Your task to perform on an android device: View the shopping cart on amazon.com. Search for usb-c on amazon.com, select the first entry, and add it to the cart. Image 0: 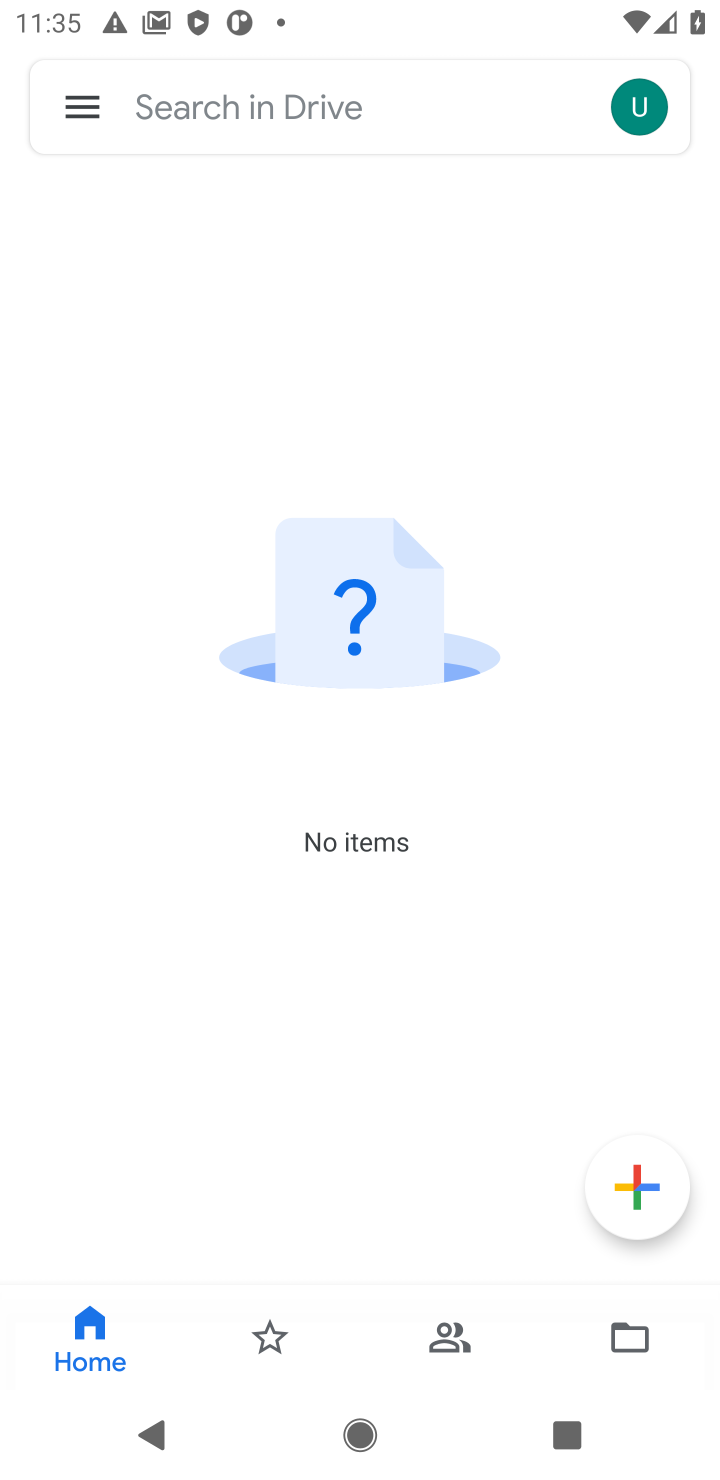
Step 0: press home button
Your task to perform on an android device: View the shopping cart on amazon.com. Search for usb-c on amazon.com, select the first entry, and add it to the cart. Image 1: 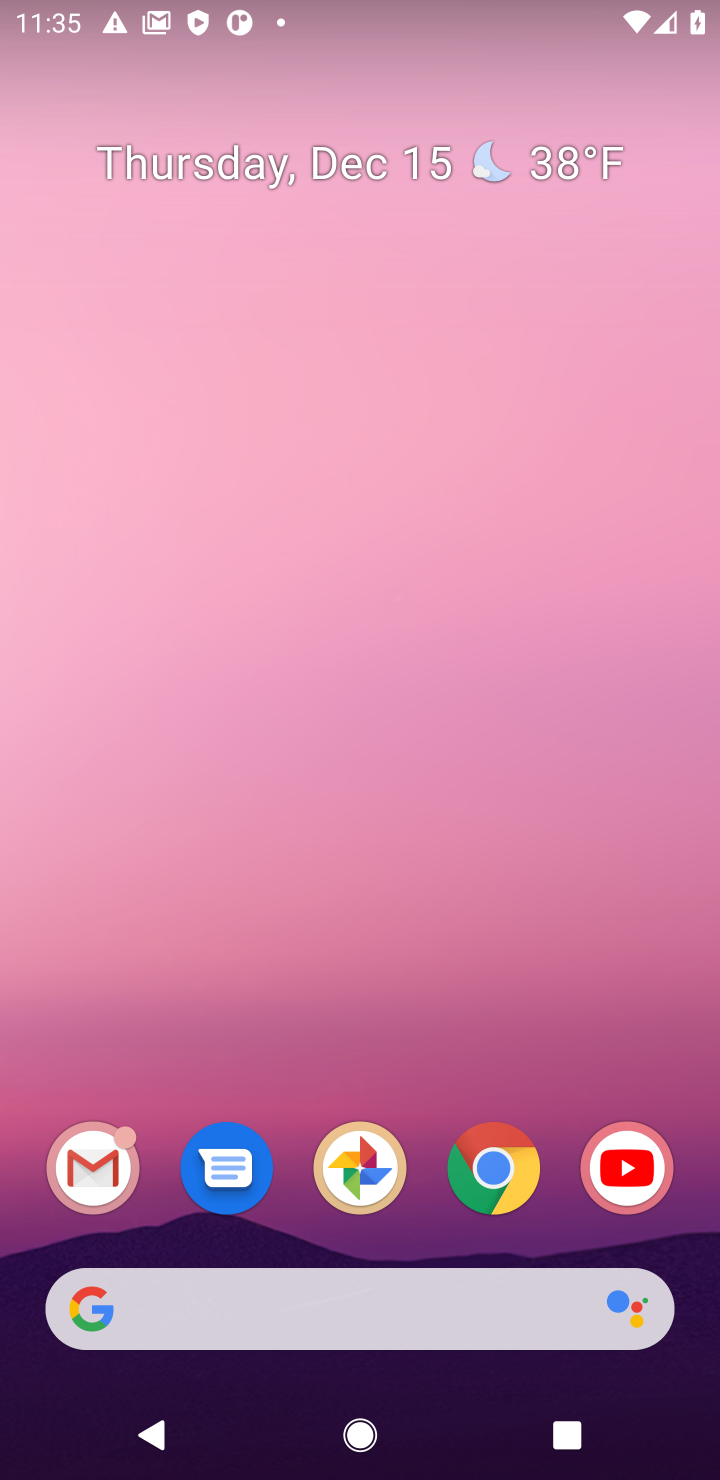
Step 1: click (485, 1176)
Your task to perform on an android device: View the shopping cart on amazon.com. Search for usb-c on amazon.com, select the first entry, and add it to the cart. Image 2: 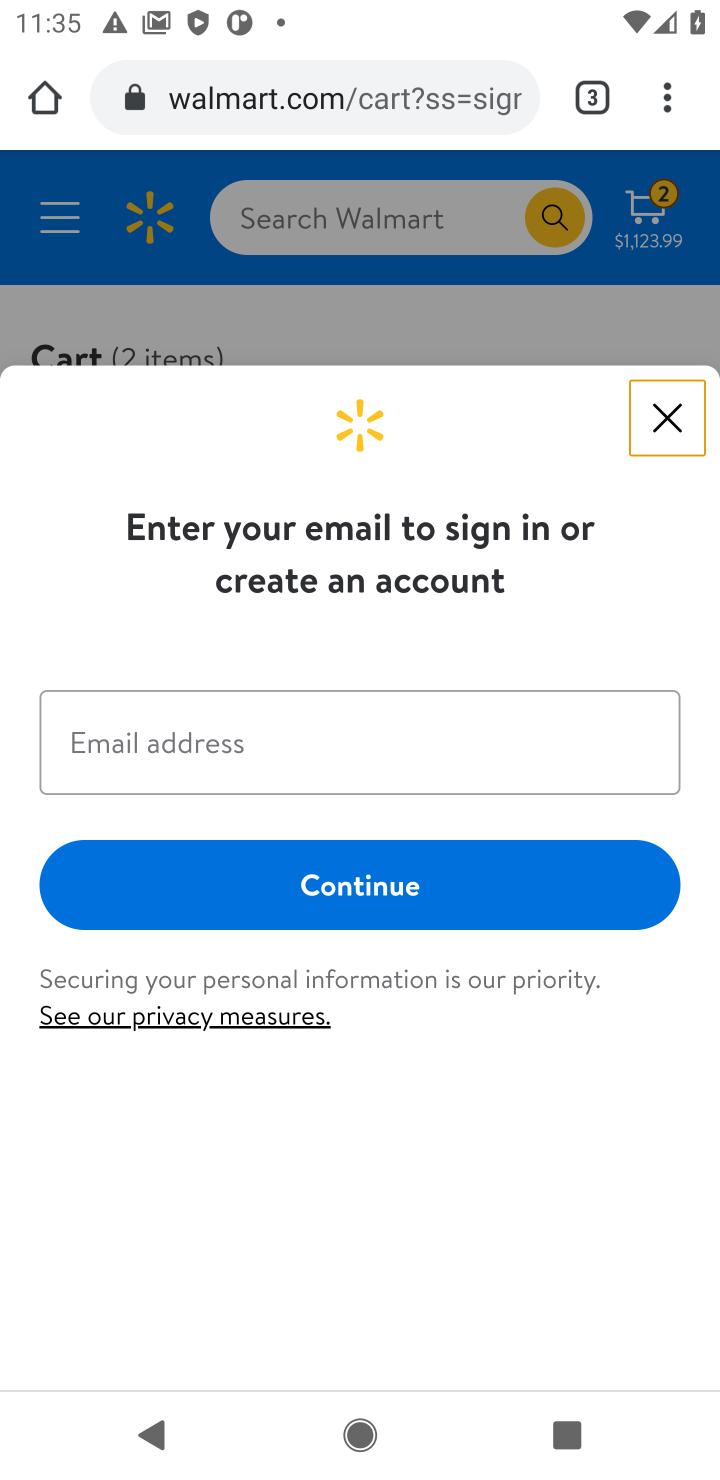
Step 2: click (673, 425)
Your task to perform on an android device: View the shopping cart on amazon.com. Search for usb-c on amazon.com, select the first entry, and add it to the cart. Image 3: 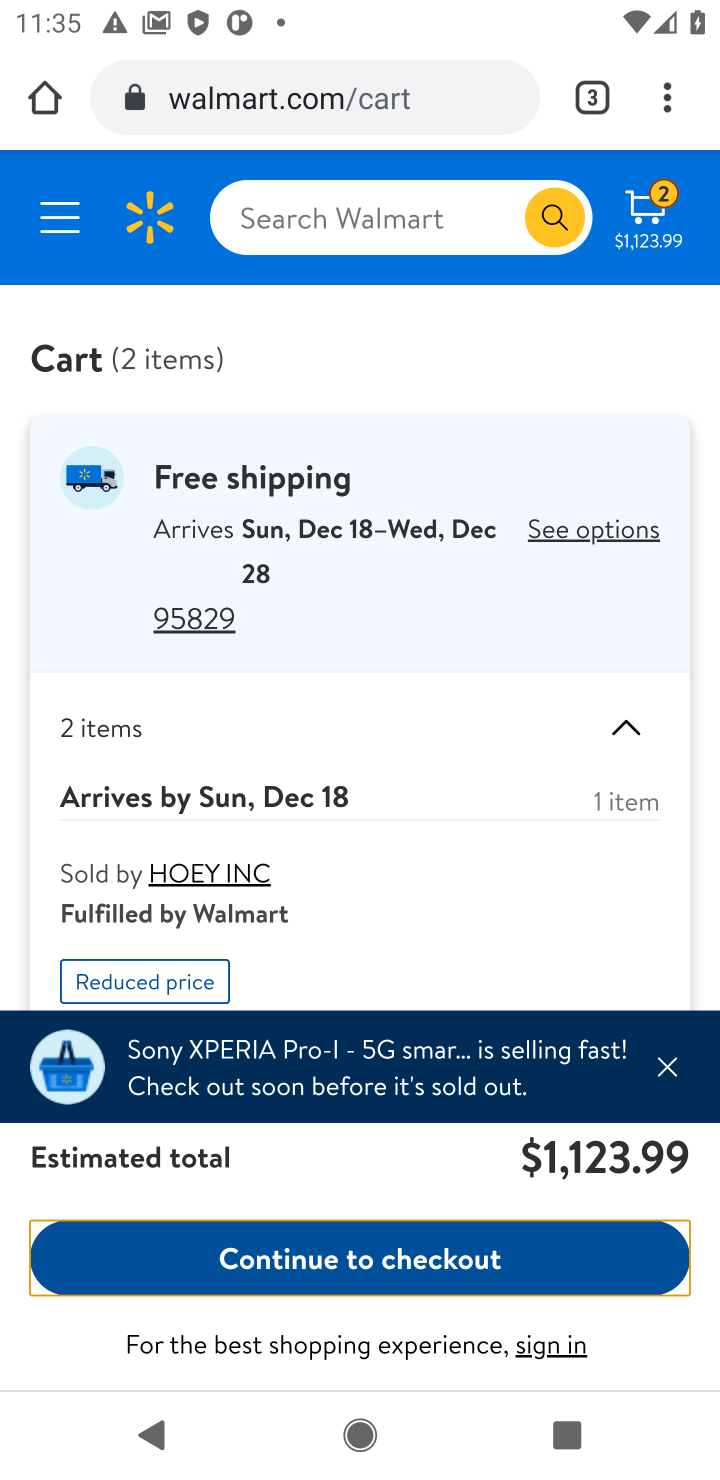
Step 3: click (353, 92)
Your task to perform on an android device: View the shopping cart on amazon.com. Search for usb-c on amazon.com, select the first entry, and add it to the cart. Image 4: 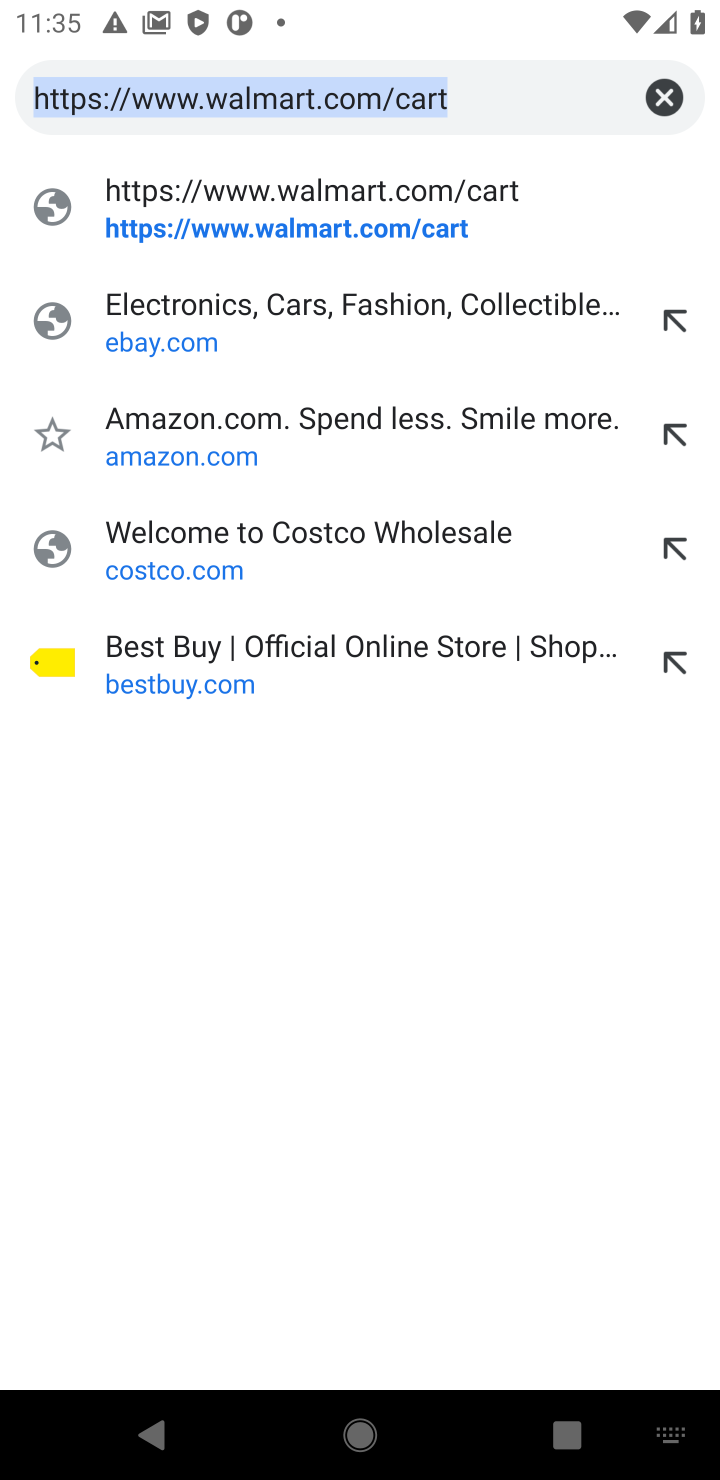
Step 4: click (212, 447)
Your task to perform on an android device: View the shopping cart on amazon.com. Search for usb-c on amazon.com, select the first entry, and add it to the cart. Image 5: 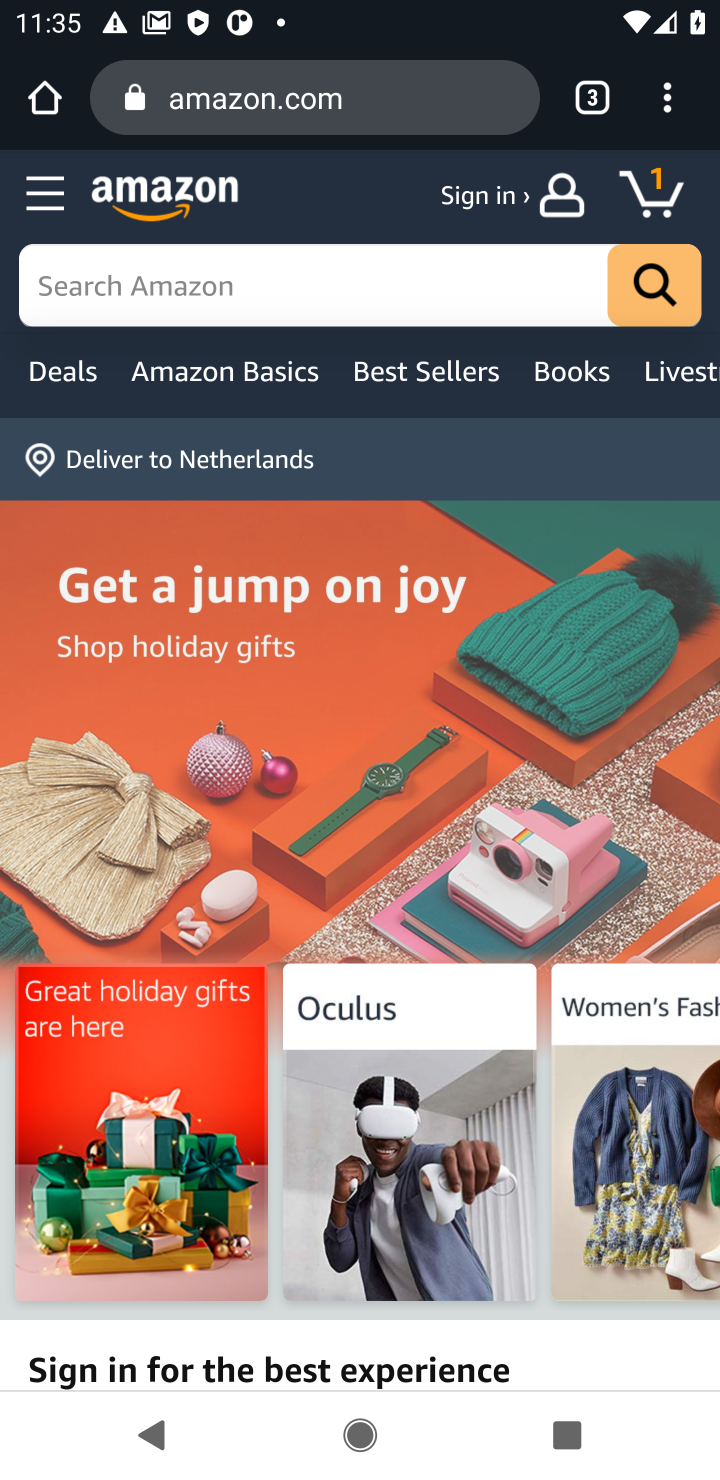
Step 5: click (260, 285)
Your task to perform on an android device: View the shopping cart on amazon.com. Search for usb-c on amazon.com, select the first entry, and add it to the cart. Image 6: 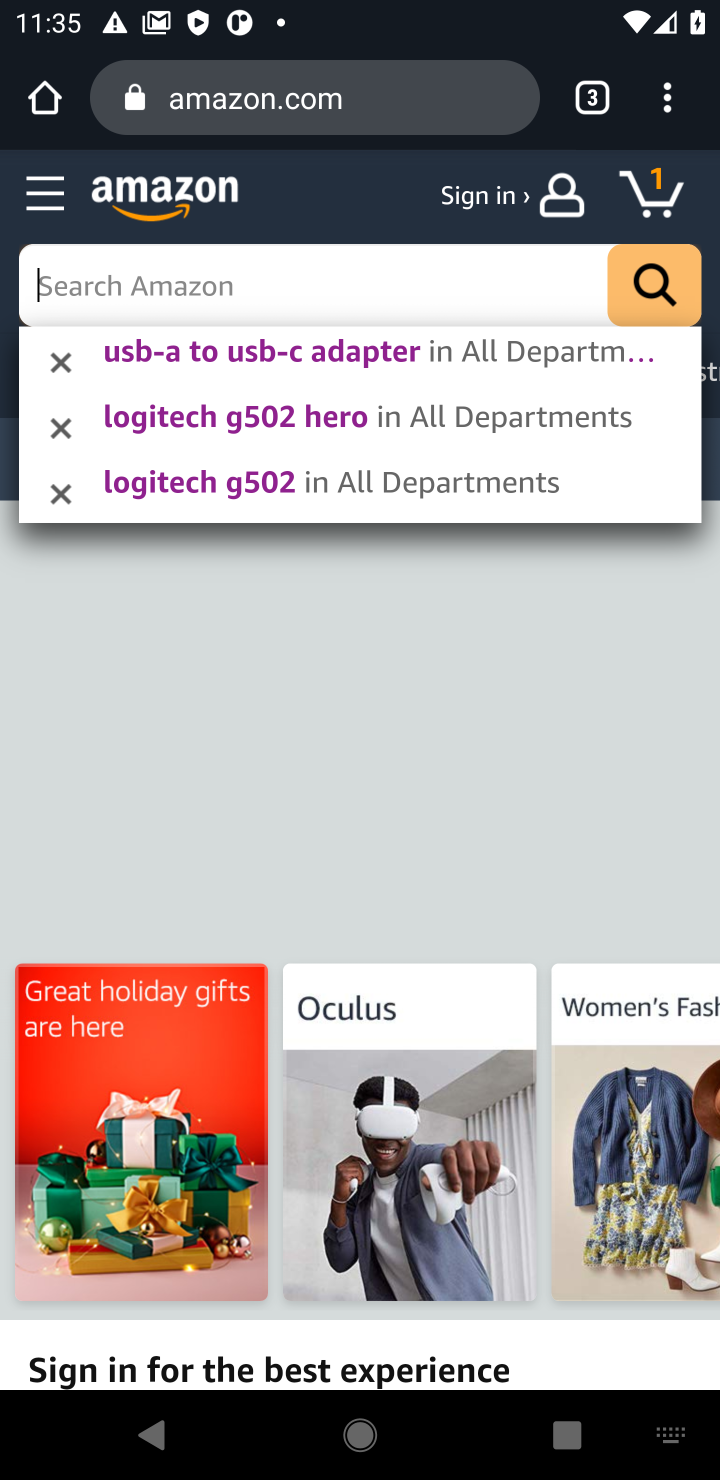
Step 6: type "usb-c"
Your task to perform on an android device: View the shopping cart on amazon.com. Search for usb-c on amazon.com, select the first entry, and add it to the cart. Image 7: 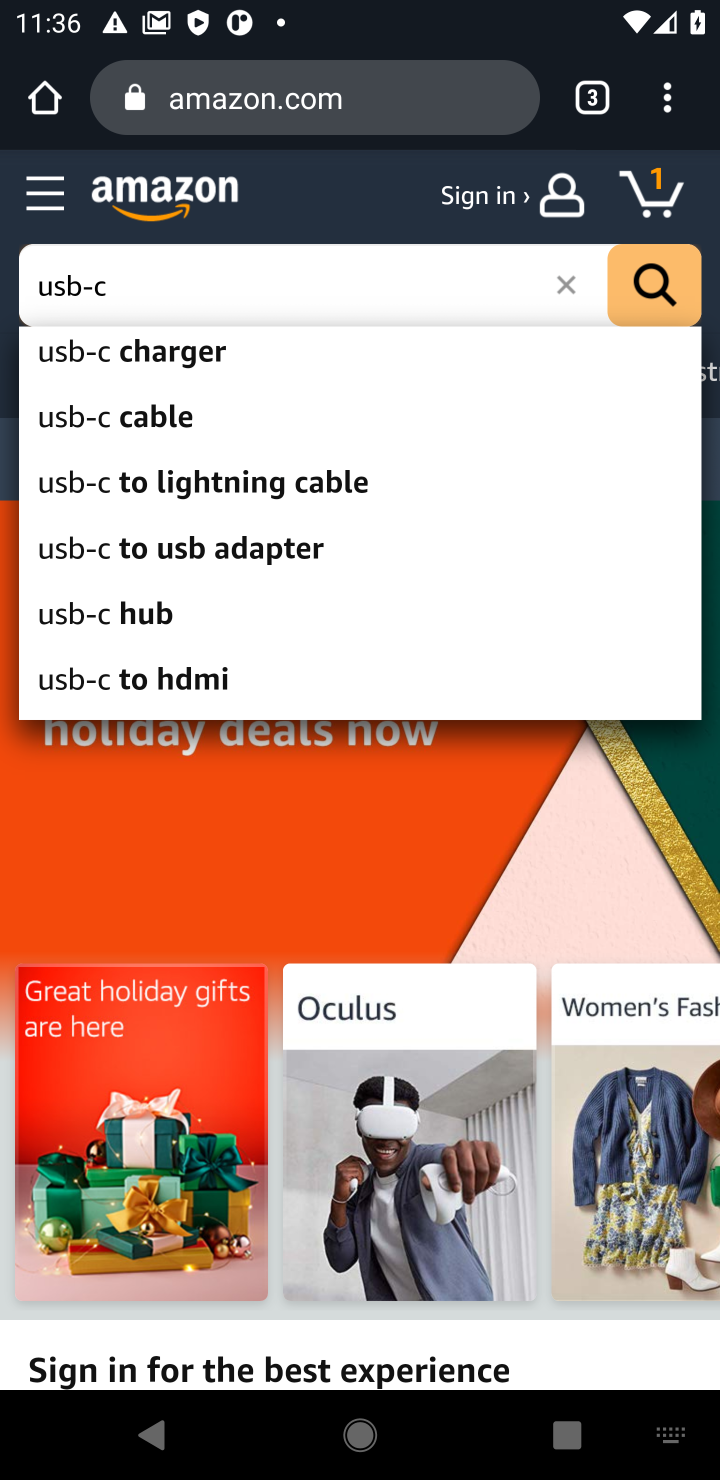
Step 7: click (206, 355)
Your task to perform on an android device: View the shopping cart on amazon.com. Search for usb-c on amazon.com, select the first entry, and add it to the cart. Image 8: 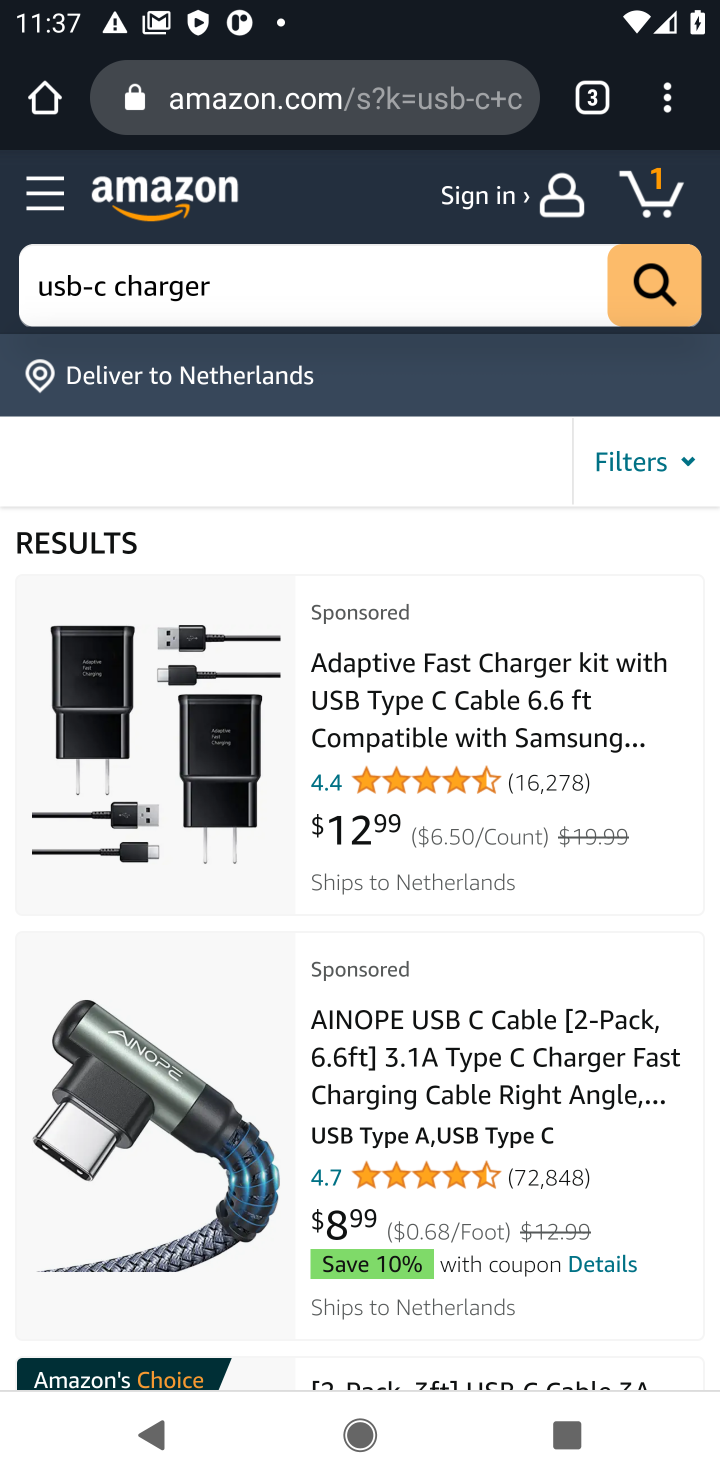
Step 8: click (592, 676)
Your task to perform on an android device: View the shopping cart on amazon.com. Search for usb-c on amazon.com, select the first entry, and add it to the cart. Image 9: 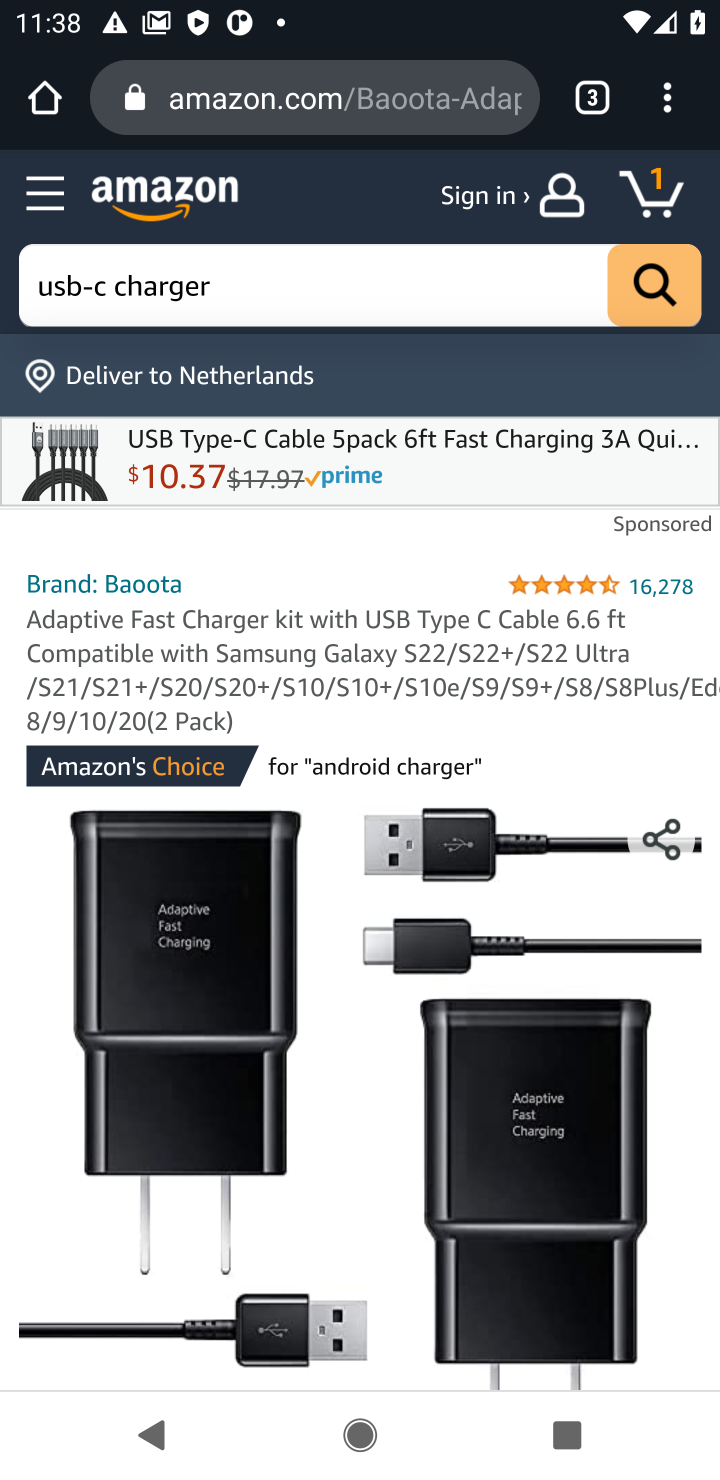
Step 9: drag from (422, 1129) to (509, 0)
Your task to perform on an android device: View the shopping cart on amazon.com. Search for usb-c on amazon.com, select the first entry, and add it to the cart. Image 10: 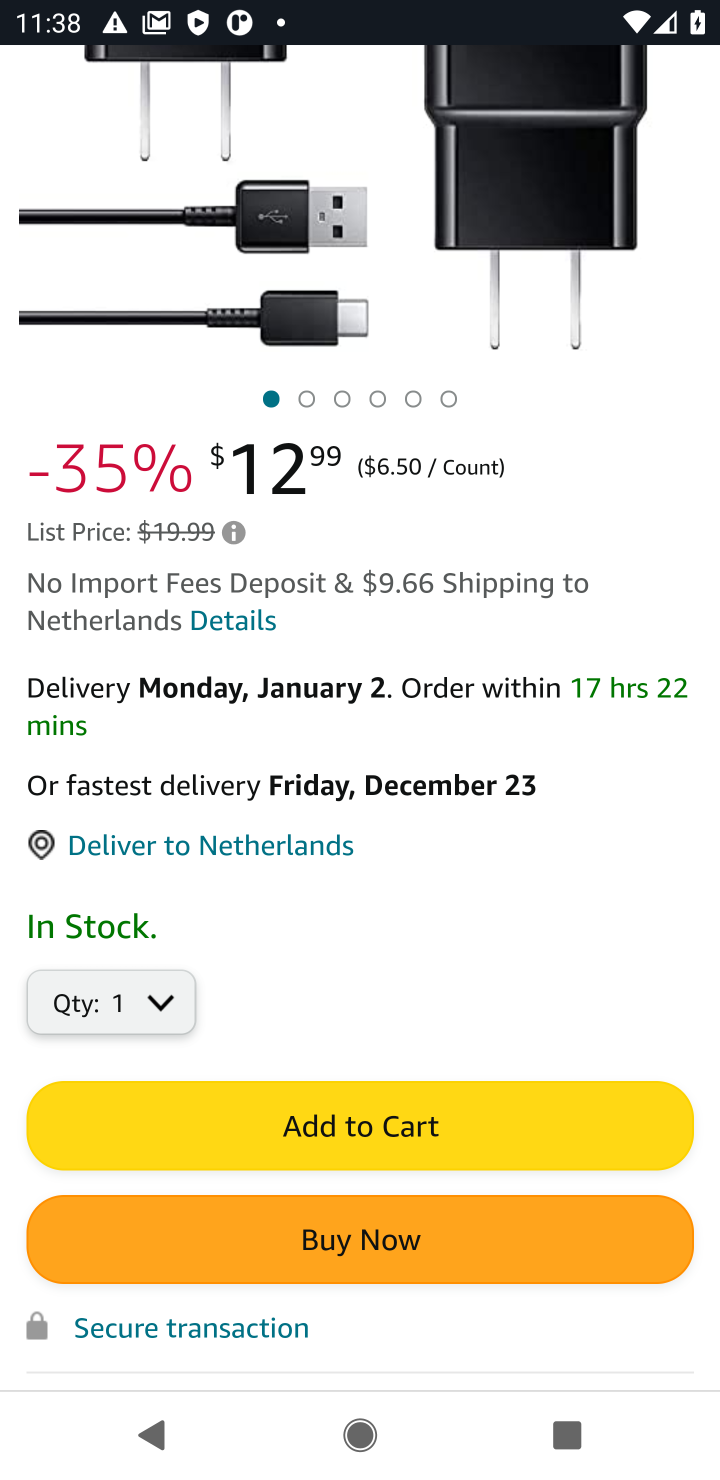
Step 10: click (450, 1133)
Your task to perform on an android device: View the shopping cart on amazon.com. Search for usb-c on amazon.com, select the first entry, and add it to the cart. Image 11: 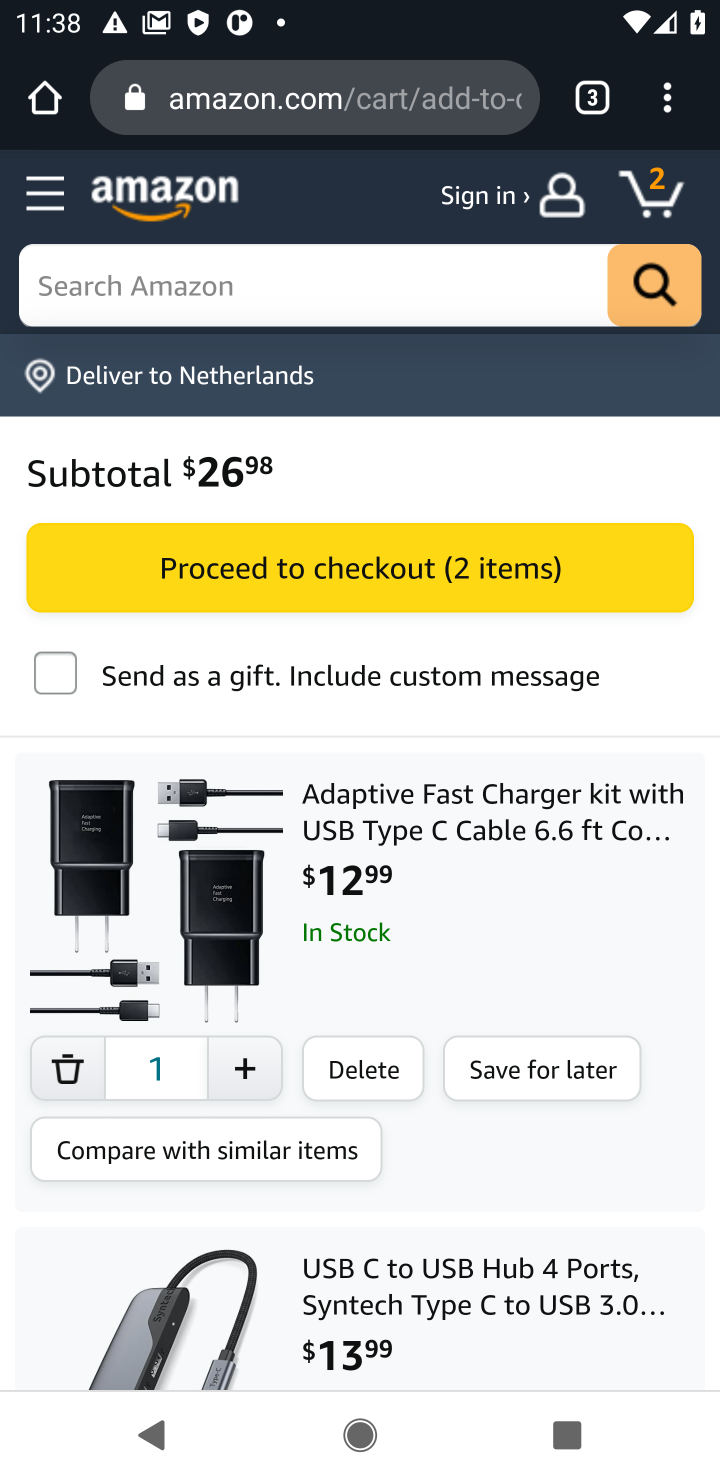
Step 11: task complete